Your task to perform on an android device: Go to Maps Image 0: 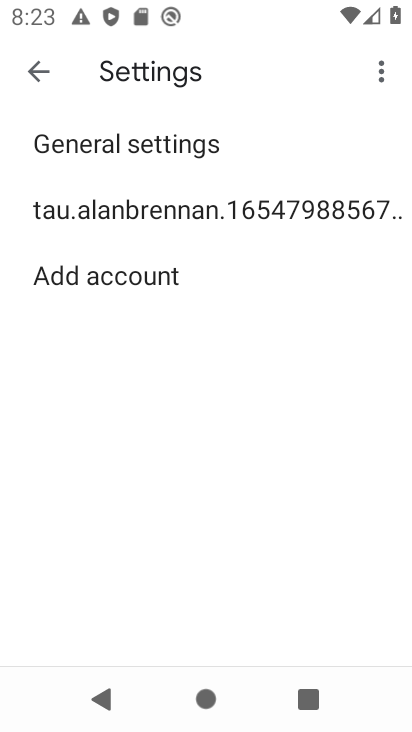
Step 0: press home button
Your task to perform on an android device: Go to Maps Image 1: 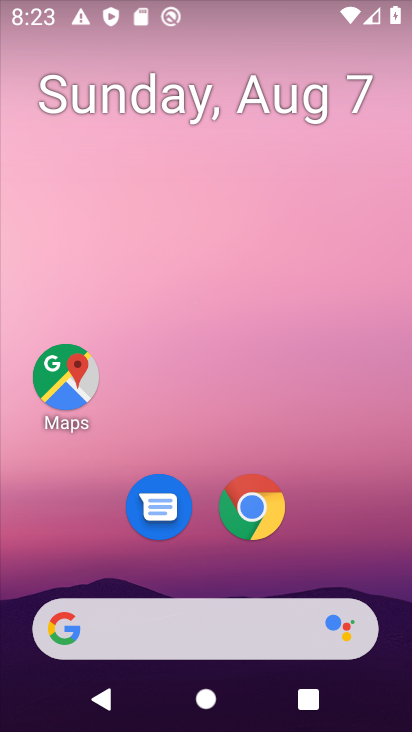
Step 1: click (66, 379)
Your task to perform on an android device: Go to Maps Image 2: 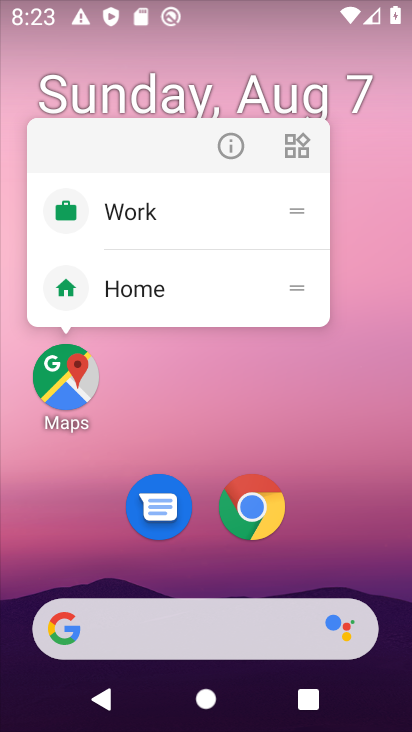
Step 2: click (66, 379)
Your task to perform on an android device: Go to Maps Image 3: 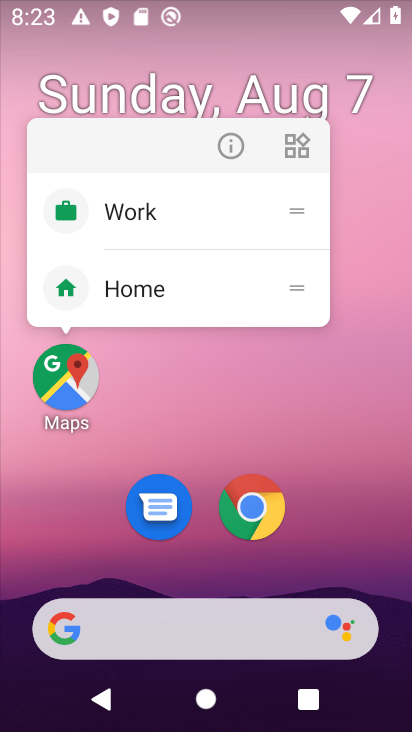
Step 3: click (67, 365)
Your task to perform on an android device: Go to Maps Image 4: 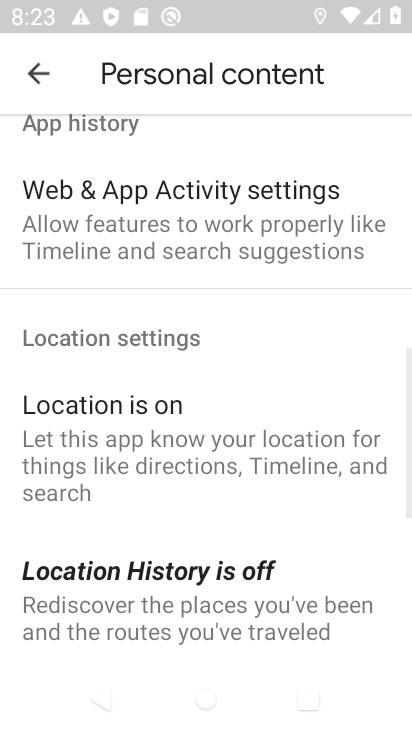
Step 4: click (47, 74)
Your task to perform on an android device: Go to Maps Image 5: 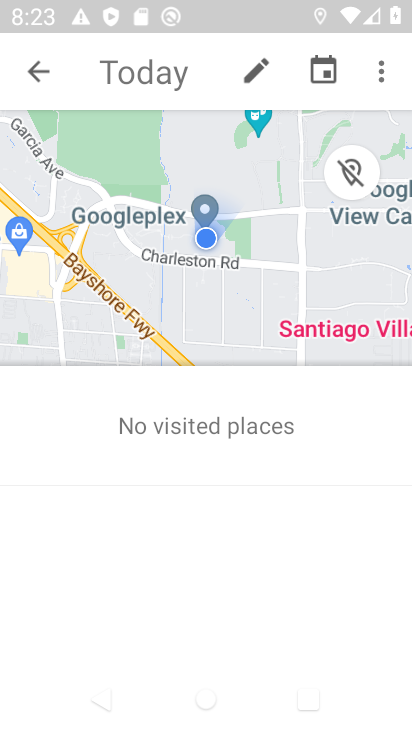
Step 5: click (46, 73)
Your task to perform on an android device: Go to Maps Image 6: 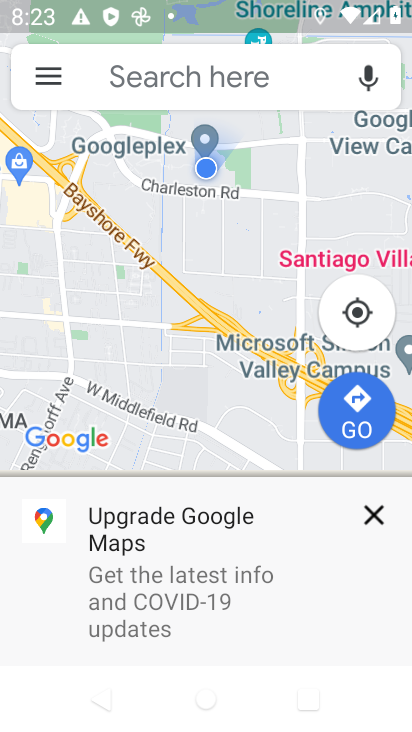
Step 6: click (372, 516)
Your task to perform on an android device: Go to Maps Image 7: 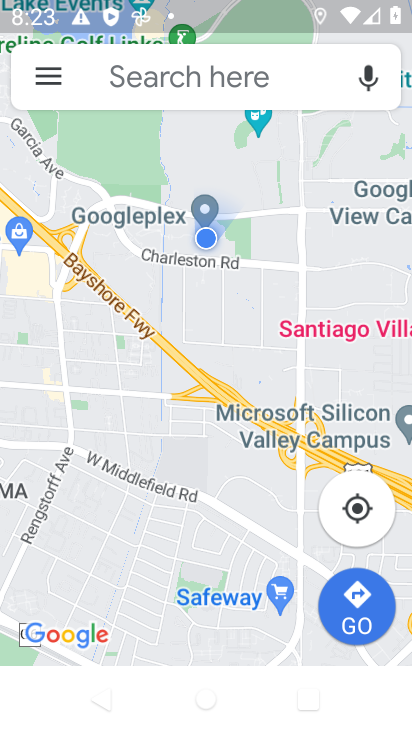
Step 7: task complete